Your task to perform on an android device: open a bookmark in the chrome app Image 0: 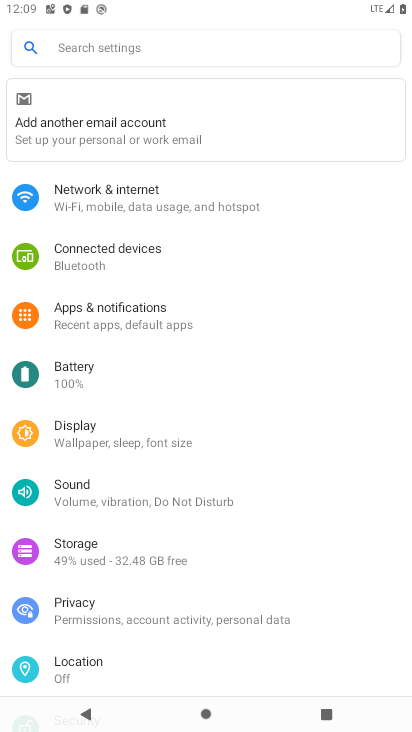
Step 0: press back button
Your task to perform on an android device: open a bookmark in the chrome app Image 1: 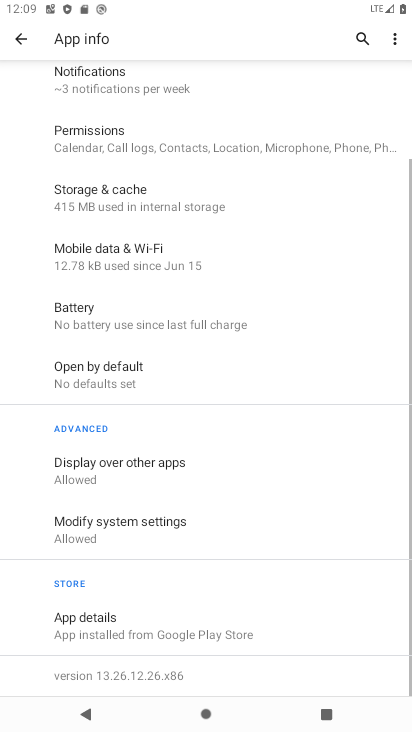
Step 1: press back button
Your task to perform on an android device: open a bookmark in the chrome app Image 2: 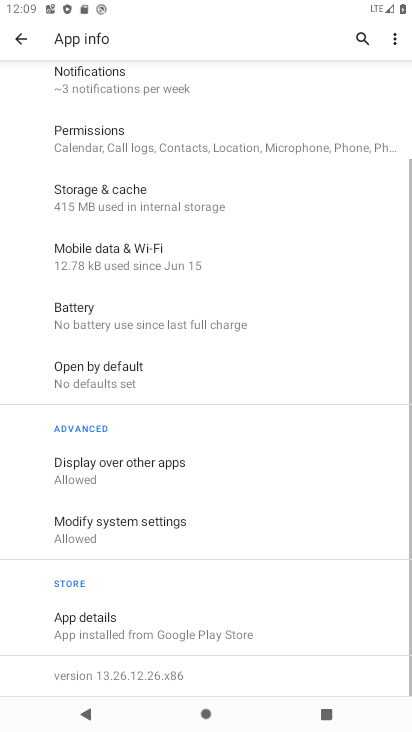
Step 2: press back button
Your task to perform on an android device: open a bookmark in the chrome app Image 3: 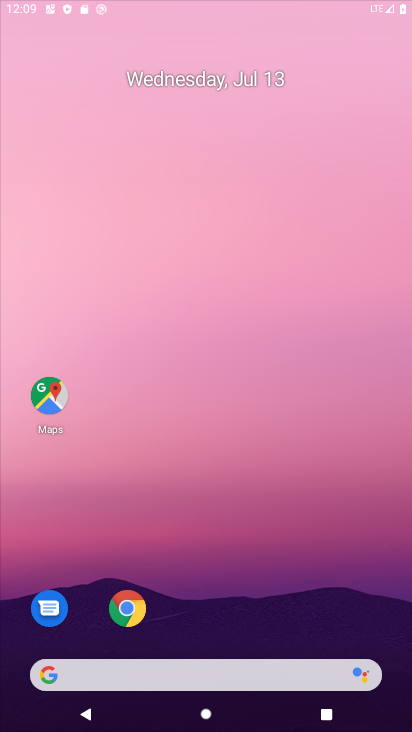
Step 3: press back button
Your task to perform on an android device: open a bookmark in the chrome app Image 4: 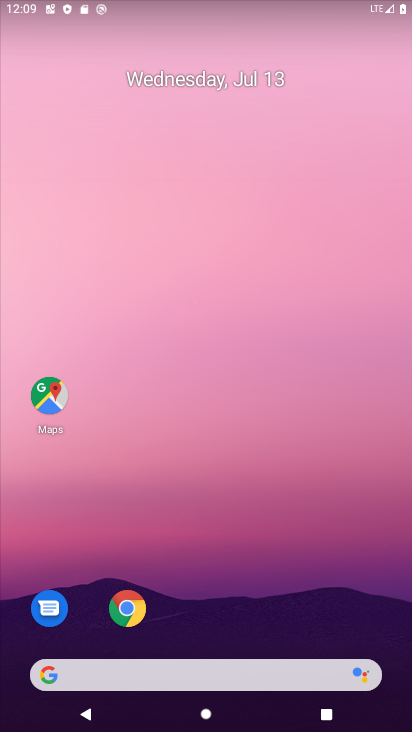
Step 4: click (138, 616)
Your task to perform on an android device: open a bookmark in the chrome app Image 5: 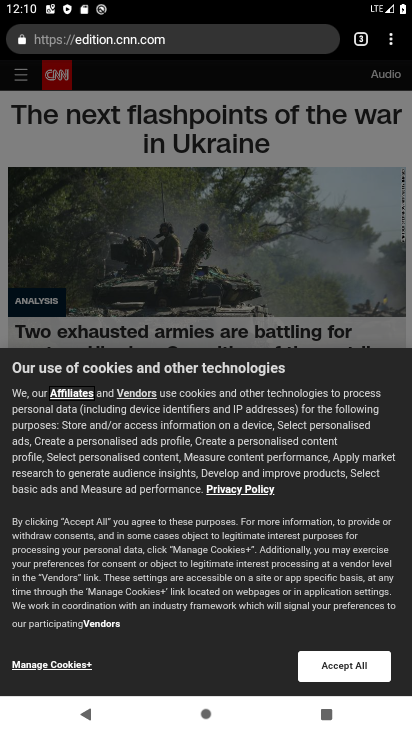
Step 5: drag from (389, 37) to (279, 190)
Your task to perform on an android device: open a bookmark in the chrome app Image 6: 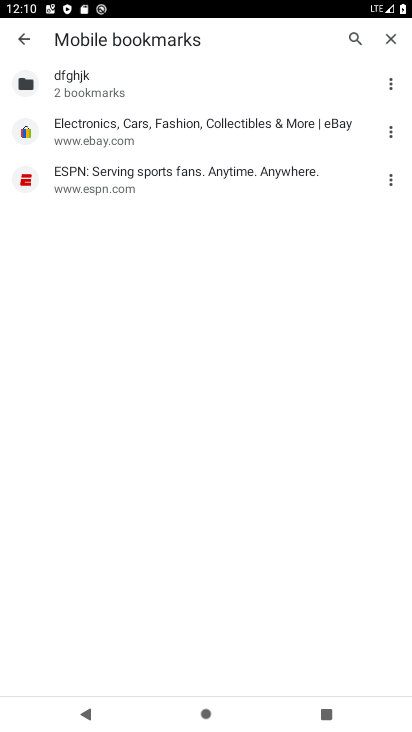
Step 6: click (156, 136)
Your task to perform on an android device: open a bookmark in the chrome app Image 7: 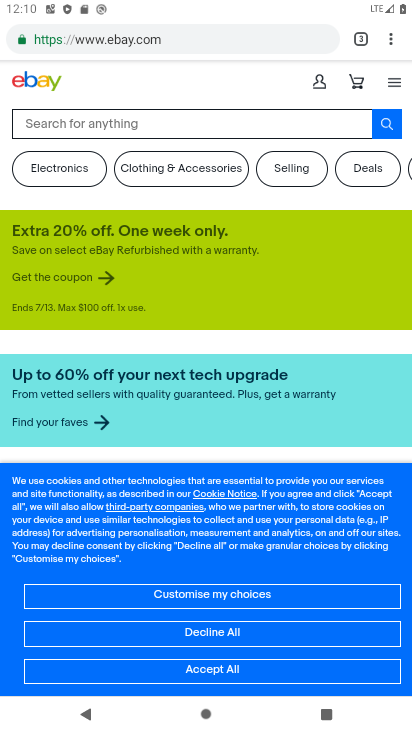
Step 7: task complete